Your task to perform on an android device: Is it going to rain this weekend? Image 0: 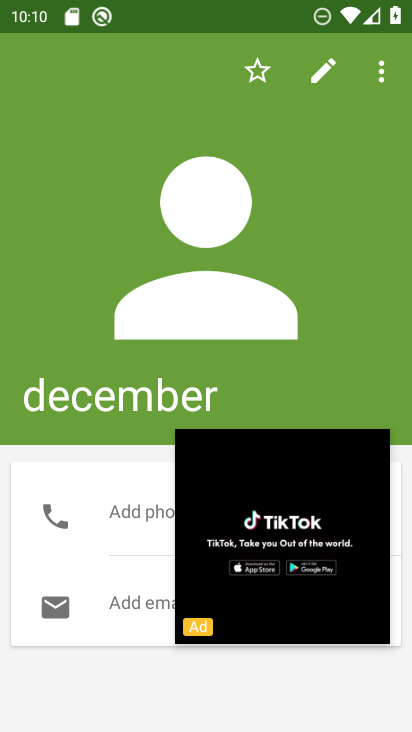
Step 0: press home button
Your task to perform on an android device: Is it going to rain this weekend? Image 1: 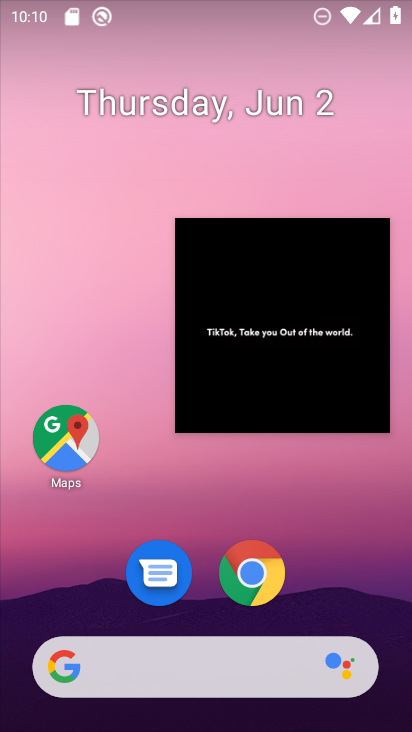
Step 1: click (337, 270)
Your task to perform on an android device: Is it going to rain this weekend? Image 2: 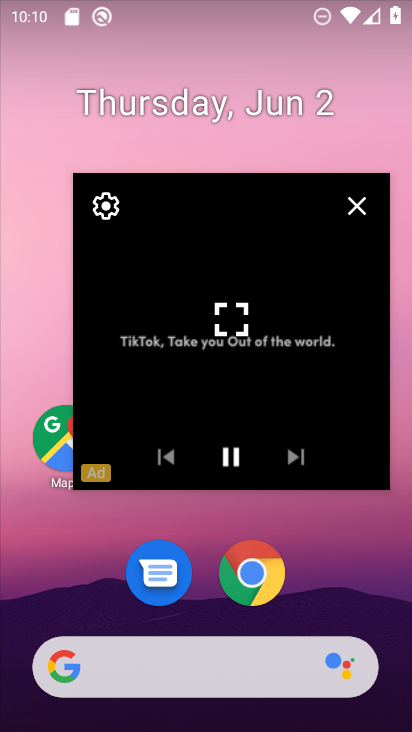
Step 2: click (357, 209)
Your task to perform on an android device: Is it going to rain this weekend? Image 3: 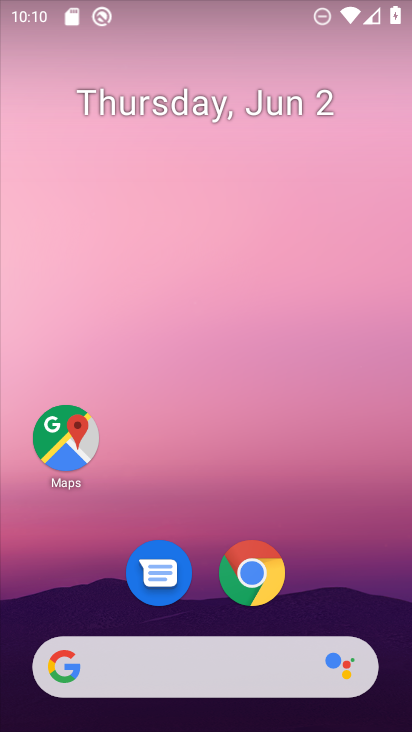
Step 3: click (345, 533)
Your task to perform on an android device: Is it going to rain this weekend? Image 4: 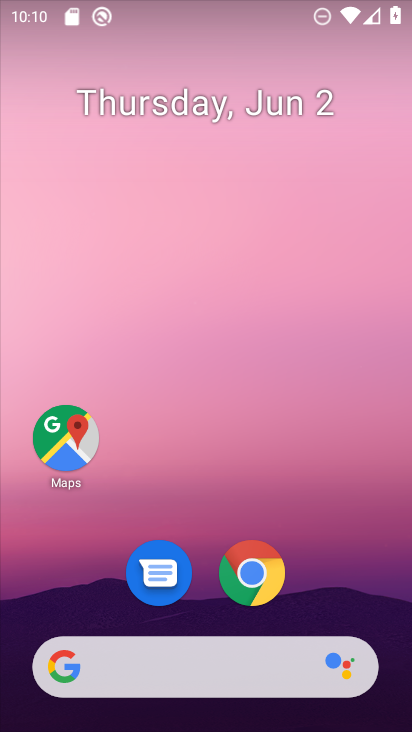
Step 4: click (252, 572)
Your task to perform on an android device: Is it going to rain this weekend? Image 5: 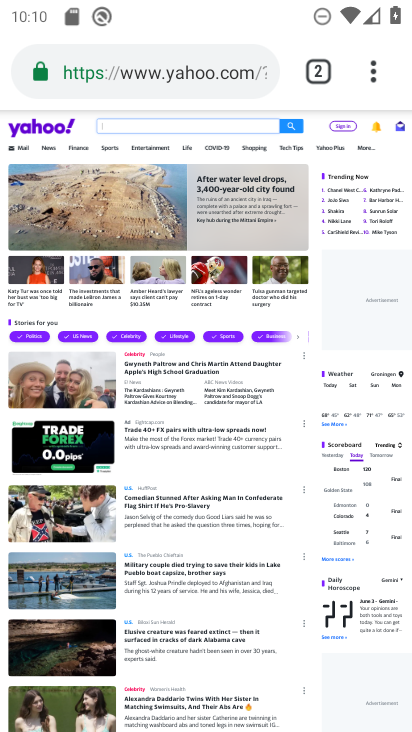
Step 5: click (202, 63)
Your task to perform on an android device: Is it going to rain this weekend? Image 6: 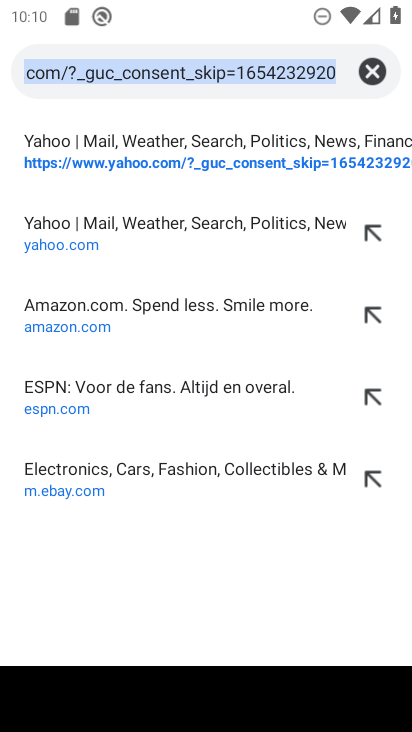
Step 6: type ""
Your task to perform on an android device: Is it going to rain this weekend? Image 7: 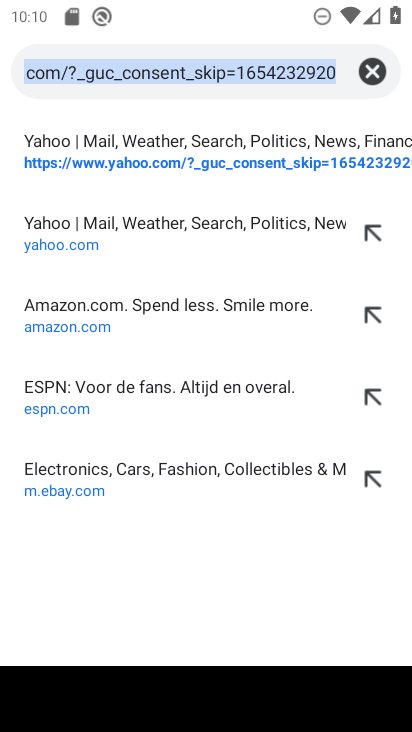
Step 7: type "weather"
Your task to perform on an android device: Is it going to rain this weekend? Image 8: 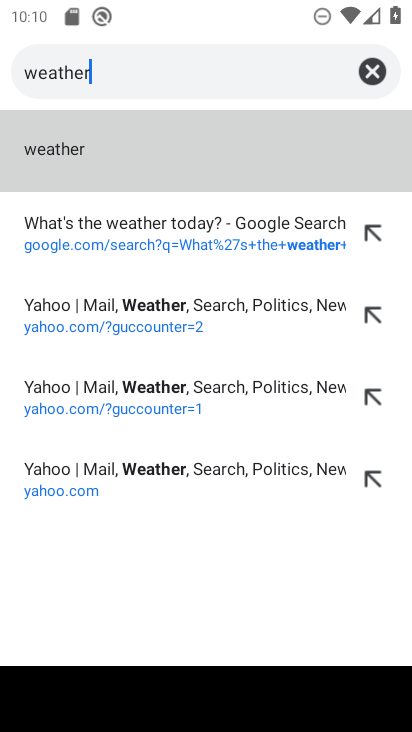
Step 8: click (42, 154)
Your task to perform on an android device: Is it going to rain this weekend? Image 9: 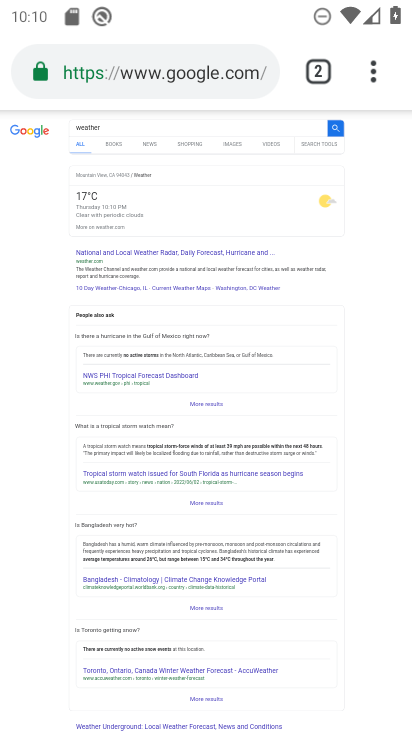
Step 9: drag from (375, 58) to (369, 498)
Your task to perform on an android device: Is it going to rain this weekend? Image 10: 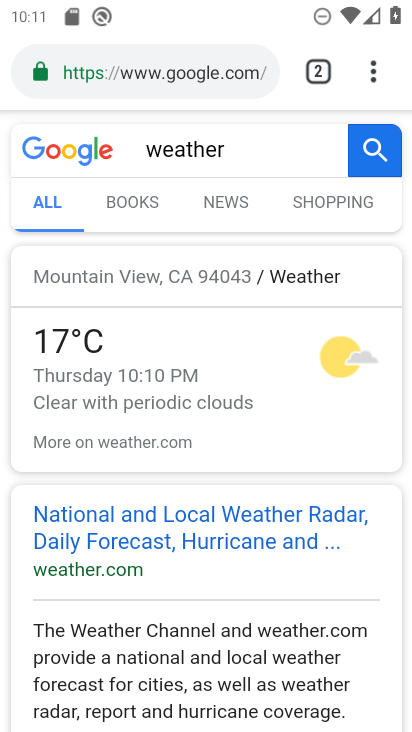
Step 10: click (241, 143)
Your task to perform on an android device: Is it going to rain this weekend? Image 11: 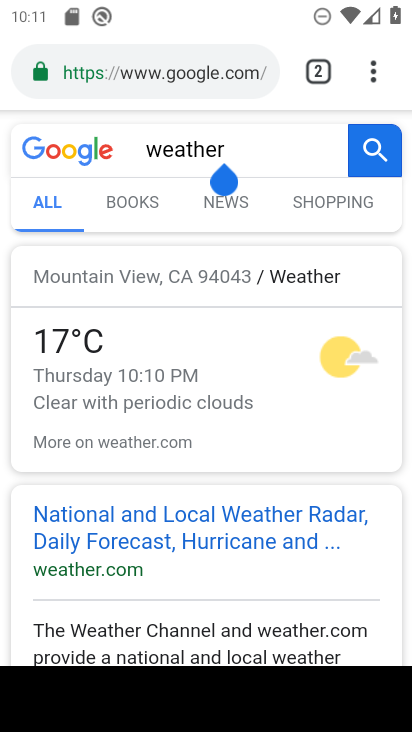
Step 11: type " weekend"
Your task to perform on an android device: Is it going to rain this weekend? Image 12: 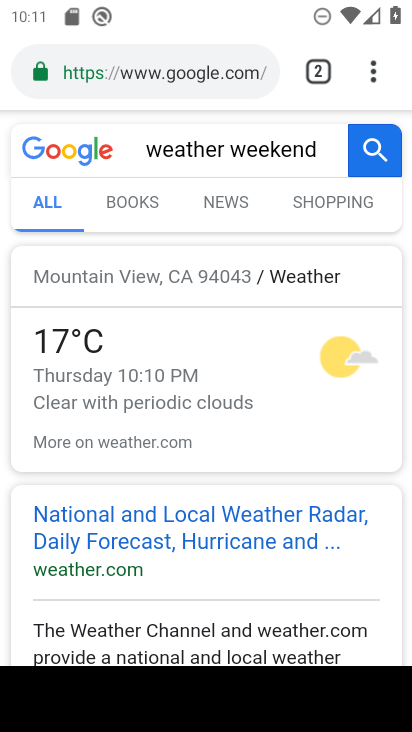
Step 12: click (375, 142)
Your task to perform on an android device: Is it going to rain this weekend? Image 13: 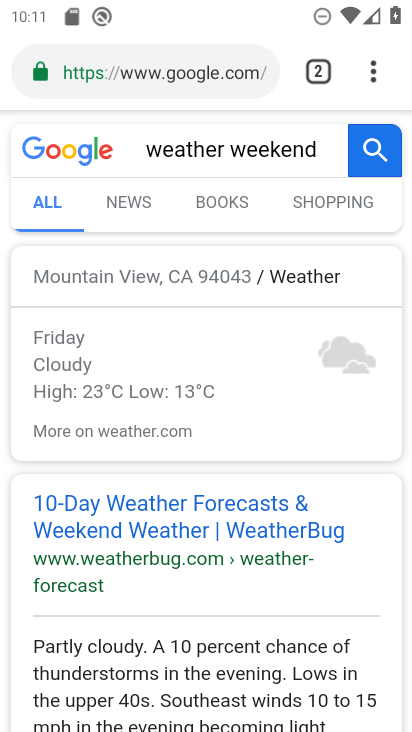
Step 13: click (215, 510)
Your task to perform on an android device: Is it going to rain this weekend? Image 14: 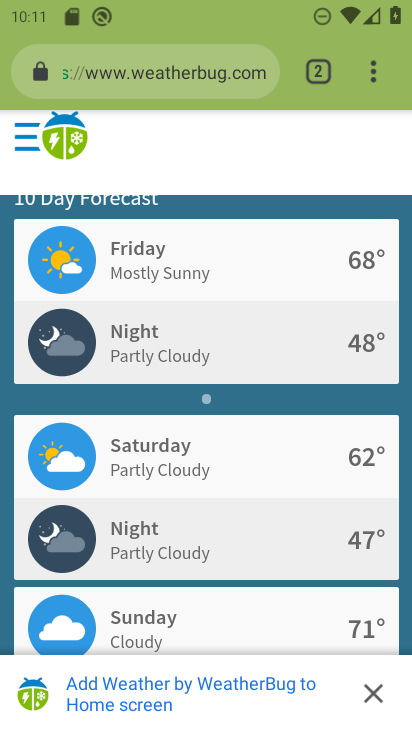
Step 14: task complete